Your task to perform on an android device: Go to Yahoo.com Image 0: 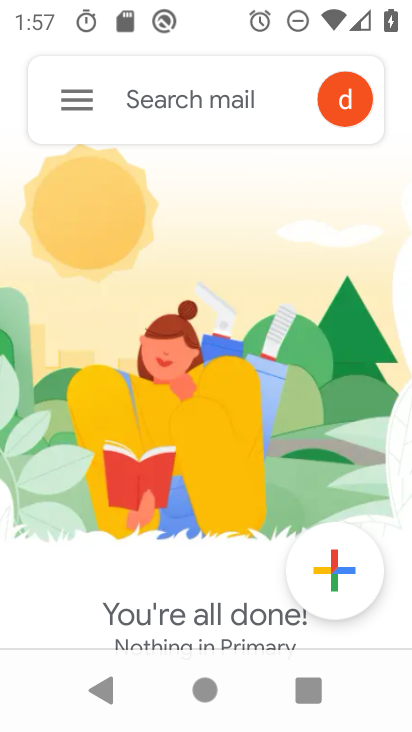
Step 0: press home button
Your task to perform on an android device: Go to Yahoo.com Image 1: 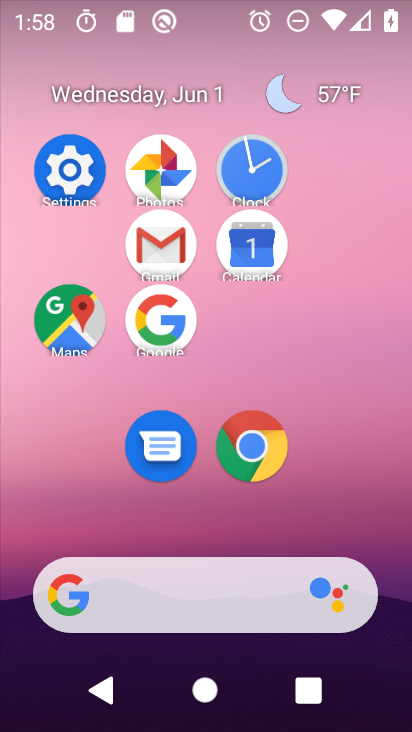
Step 1: click (256, 441)
Your task to perform on an android device: Go to Yahoo.com Image 2: 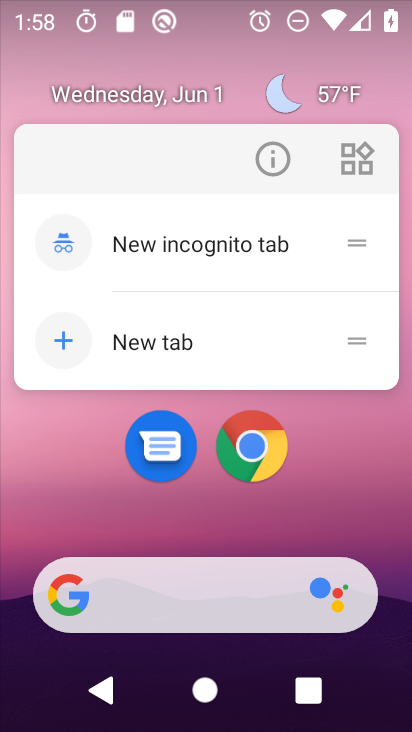
Step 2: click (268, 430)
Your task to perform on an android device: Go to Yahoo.com Image 3: 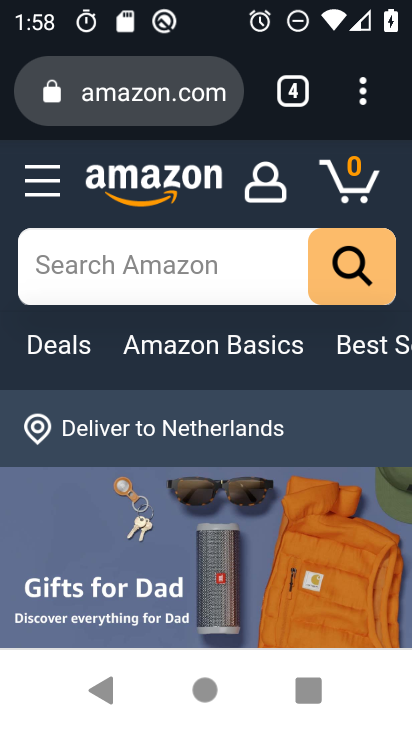
Step 3: click (297, 98)
Your task to perform on an android device: Go to Yahoo.com Image 4: 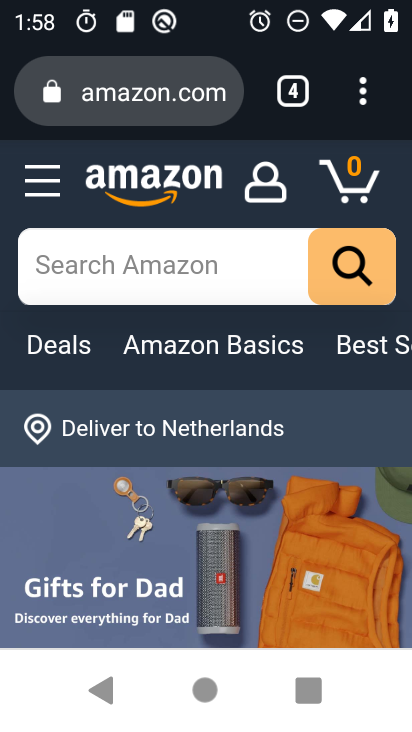
Step 4: click (313, 77)
Your task to perform on an android device: Go to Yahoo.com Image 5: 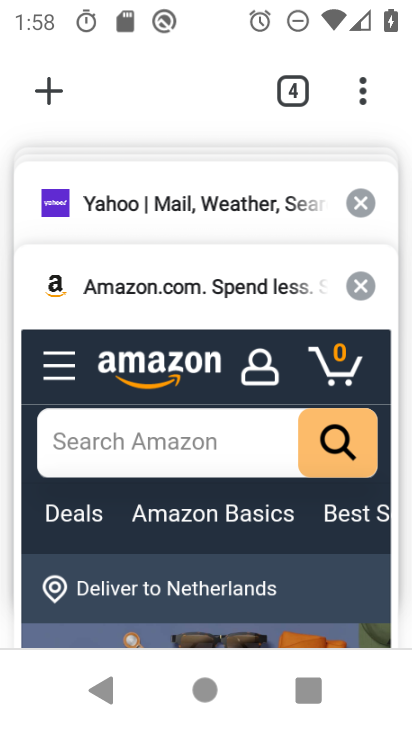
Step 5: click (217, 212)
Your task to perform on an android device: Go to Yahoo.com Image 6: 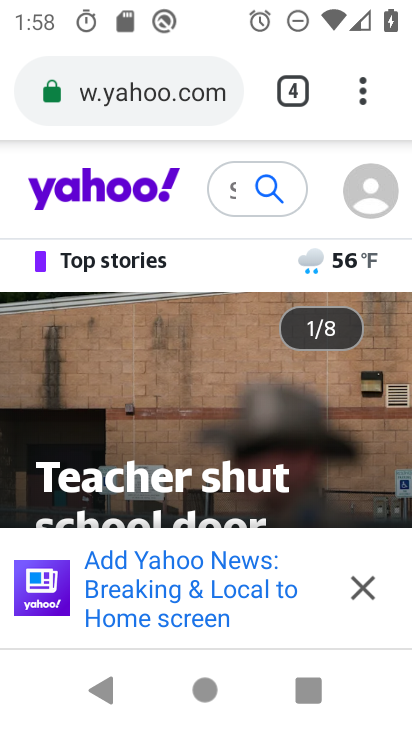
Step 6: task complete